Your task to perform on an android device: find which apps use the phone's location Image 0: 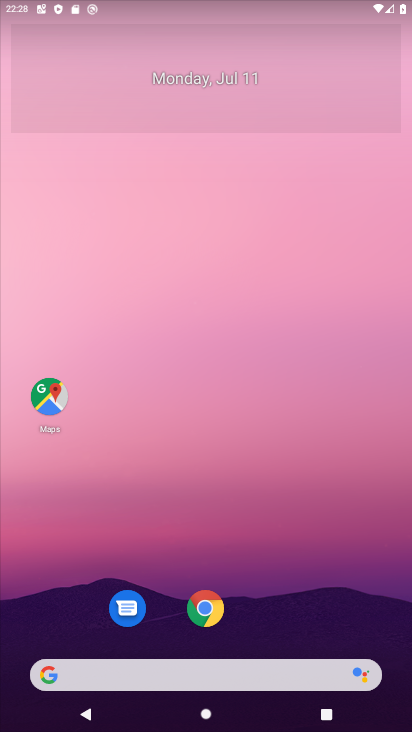
Step 0: click (111, 671)
Your task to perform on an android device: find which apps use the phone's location Image 1: 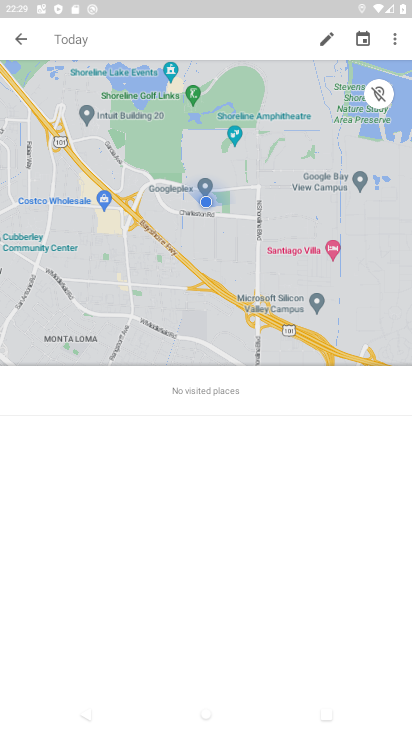
Step 1: press home button
Your task to perform on an android device: find which apps use the phone's location Image 2: 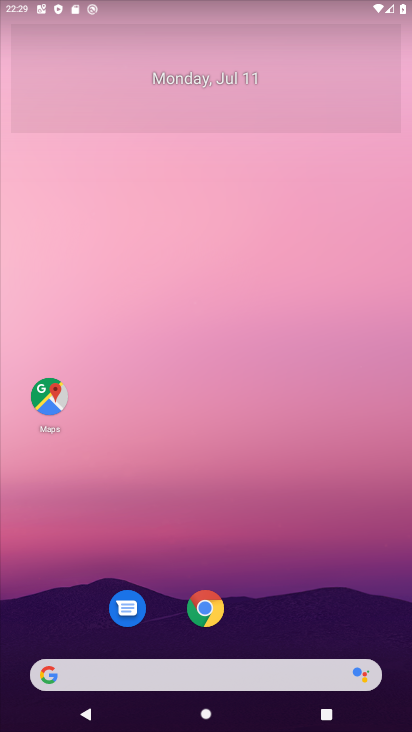
Step 2: drag from (35, 694) to (406, 244)
Your task to perform on an android device: find which apps use the phone's location Image 3: 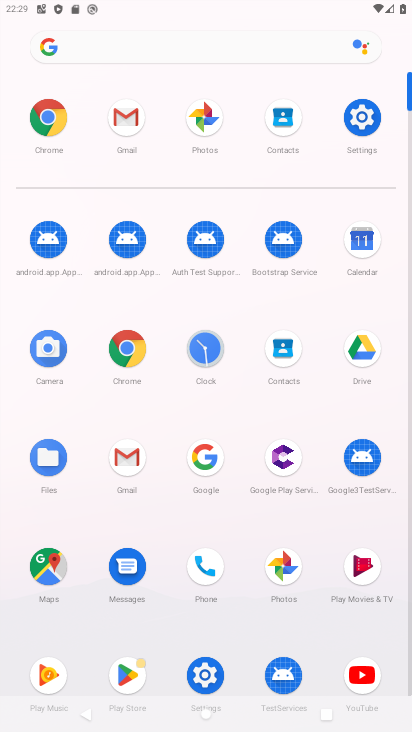
Step 3: click (206, 680)
Your task to perform on an android device: find which apps use the phone's location Image 4: 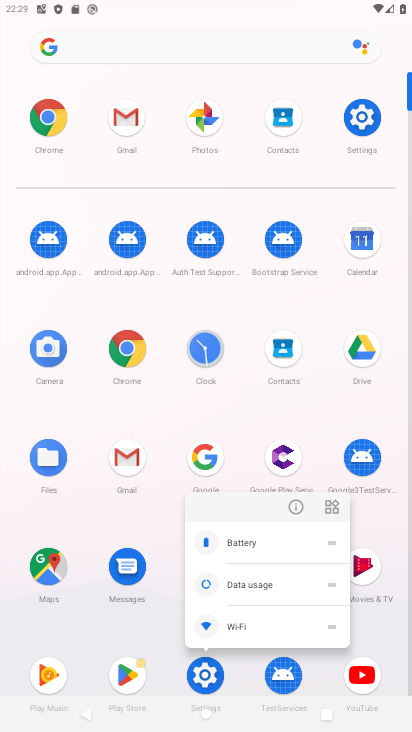
Step 4: click (205, 680)
Your task to perform on an android device: find which apps use the phone's location Image 5: 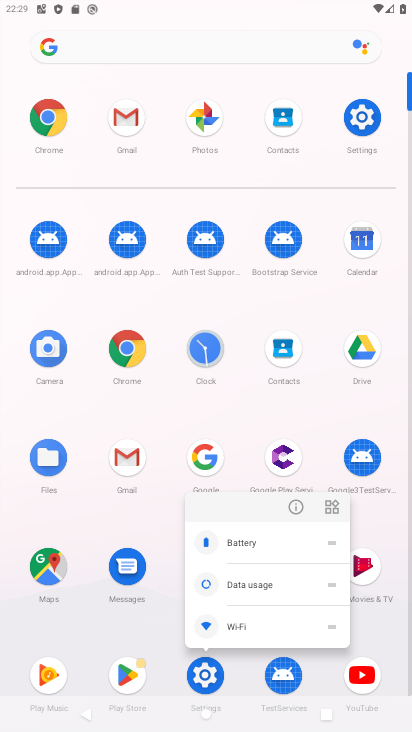
Step 5: click (205, 677)
Your task to perform on an android device: find which apps use the phone's location Image 6: 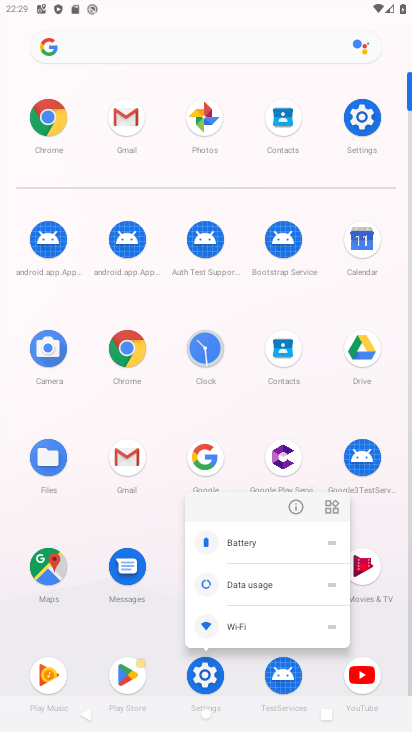
Step 6: click (202, 662)
Your task to perform on an android device: find which apps use the phone's location Image 7: 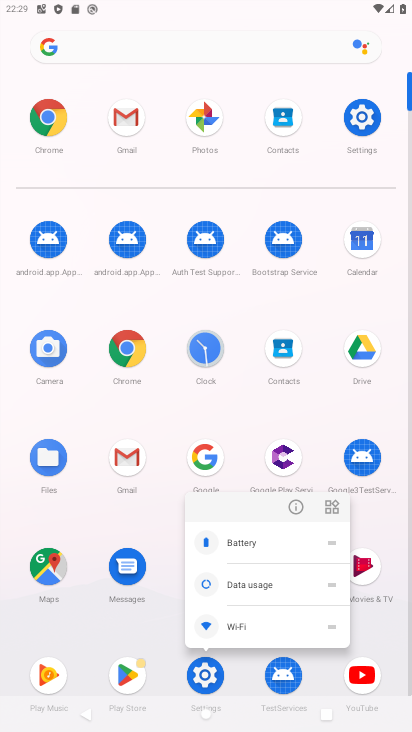
Step 7: click (187, 676)
Your task to perform on an android device: find which apps use the phone's location Image 8: 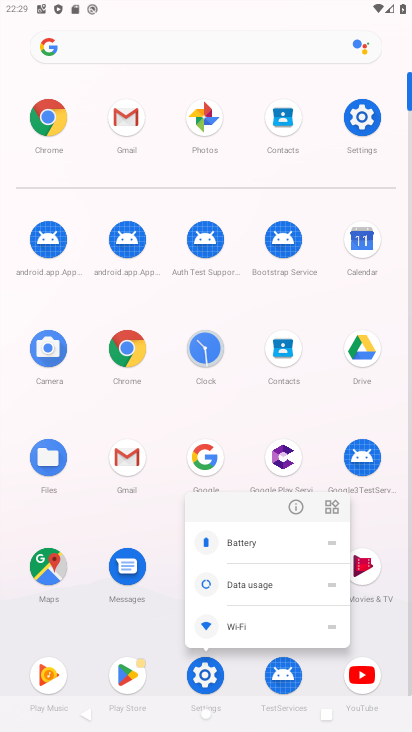
Step 8: task complete